Your task to perform on an android device: Search for pizza restaurants on Maps Image 0: 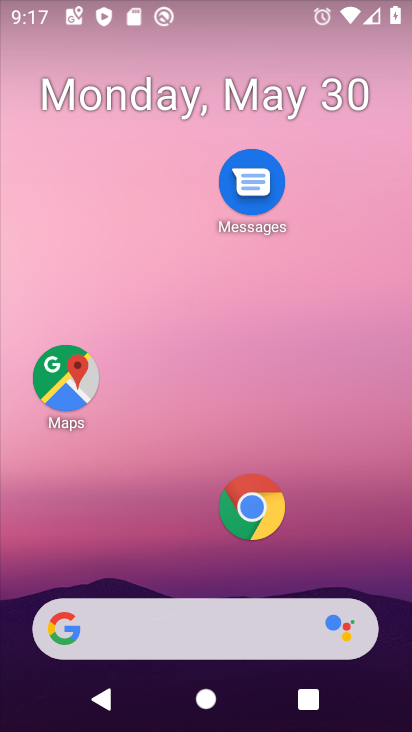
Step 0: click (68, 393)
Your task to perform on an android device: Search for pizza restaurants on Maps Image 1: 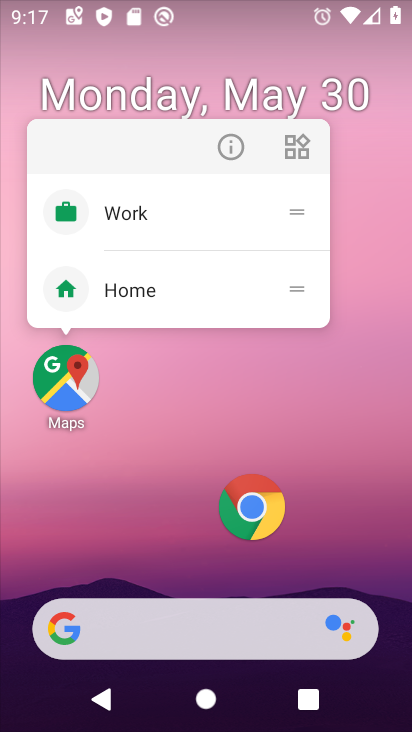
Step 1: click (68, 416)
Your task to perform on an android device: Search for pizza restaurants on Maps Image 2: 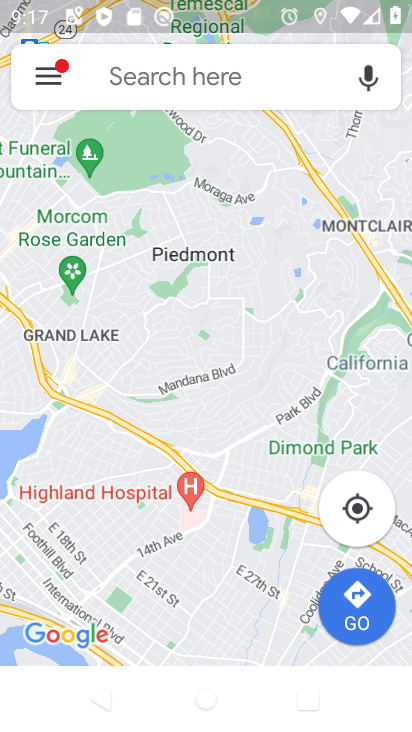
Step 2: click (222, 70)
Your task to perform on an android device: Search for pizza restaurants on Maps Image 3: 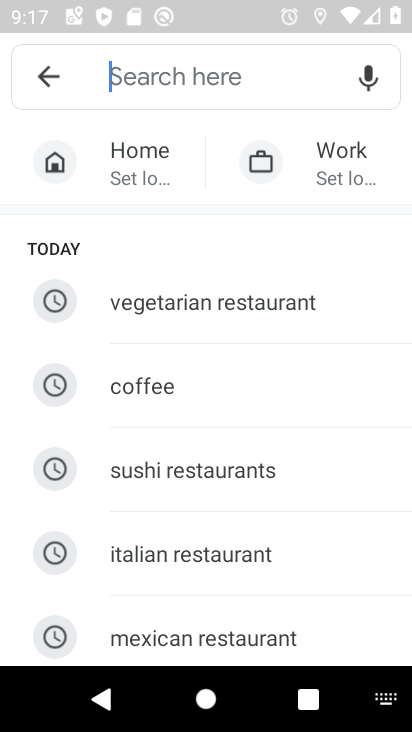
Step 3: drag from (165, 597) to (153, 388)
Your task to perform on an android device: Search for pizza restaurants on Maps Image 4: 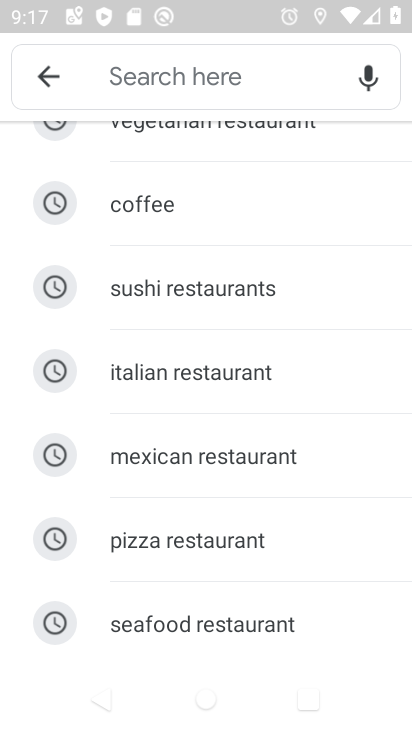
Step 4: click (170, 551)
Your task to perform on an android device: Search for pizza restaurants on Maps Image 5: 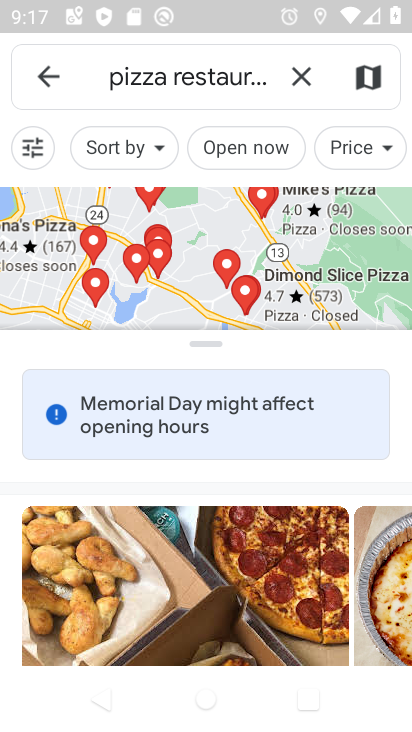
Step 5: task complete